Your task to perform on an android device: What's on my calendar today? Image 0: 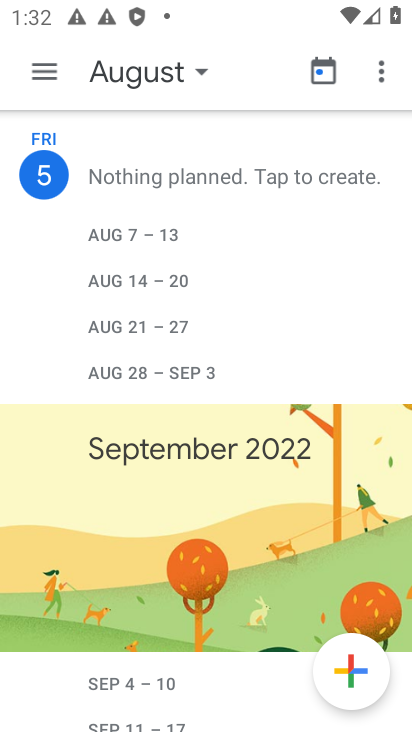
Step 0: press home button
Your task to perform on an android device: What's on my calendar today? Image 1: 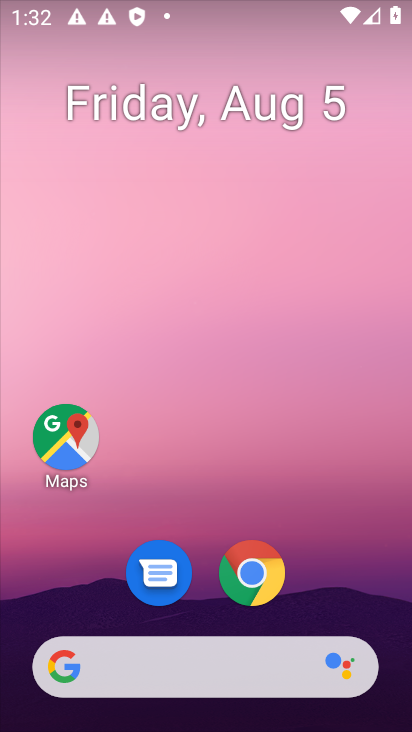
Step 1: drag from (329, 599) to (331, 162)
Your task to perform on an android device: What's on my calendar today? Image 2: 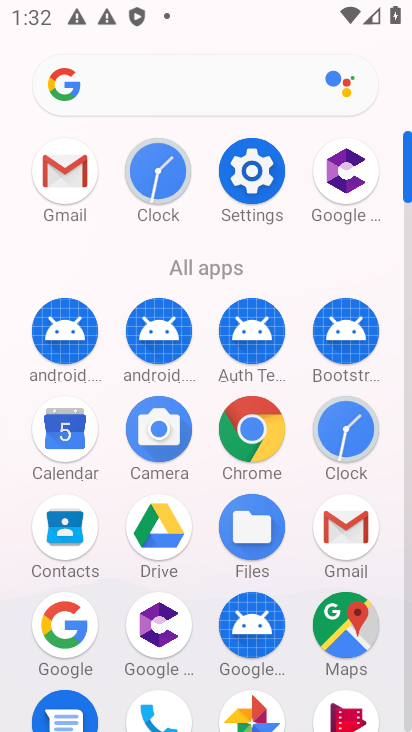
Step 2: click (73, 433)
Your task to perform on an android device: What's on my calendar today? Image 3: 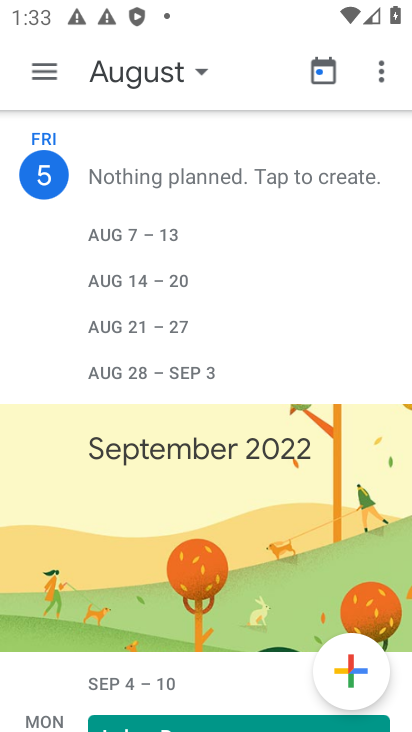
Step 3: task complete